Your task to perform on an android device: install app "Facebook" Image 0: 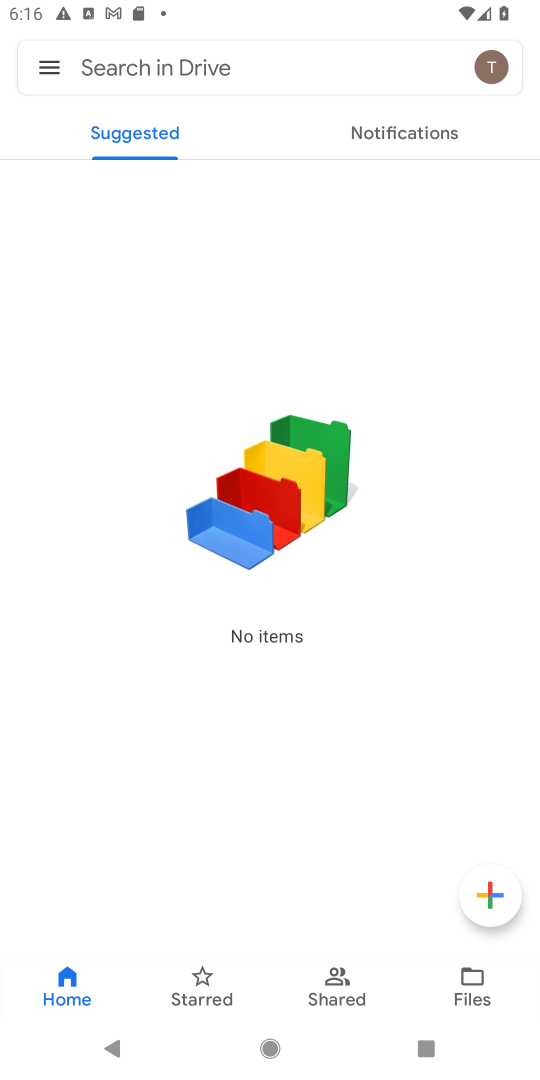
Step 0: press home button
Your task to perform on an android device: install app "Facebook" Image 1: 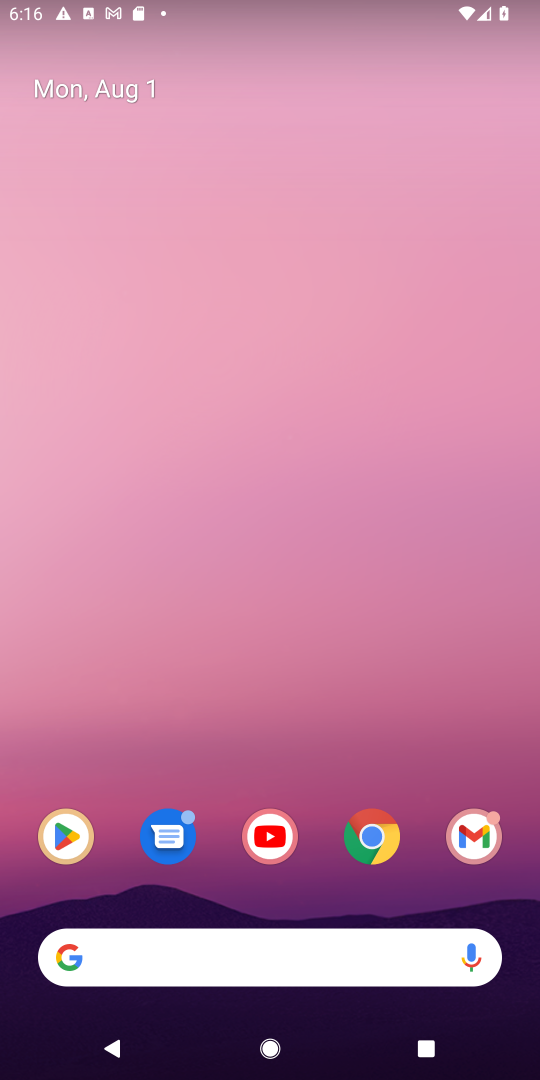
Step 1: click (66, 832)
Your task to perform on an android device: install app "Facebook" Image 2: 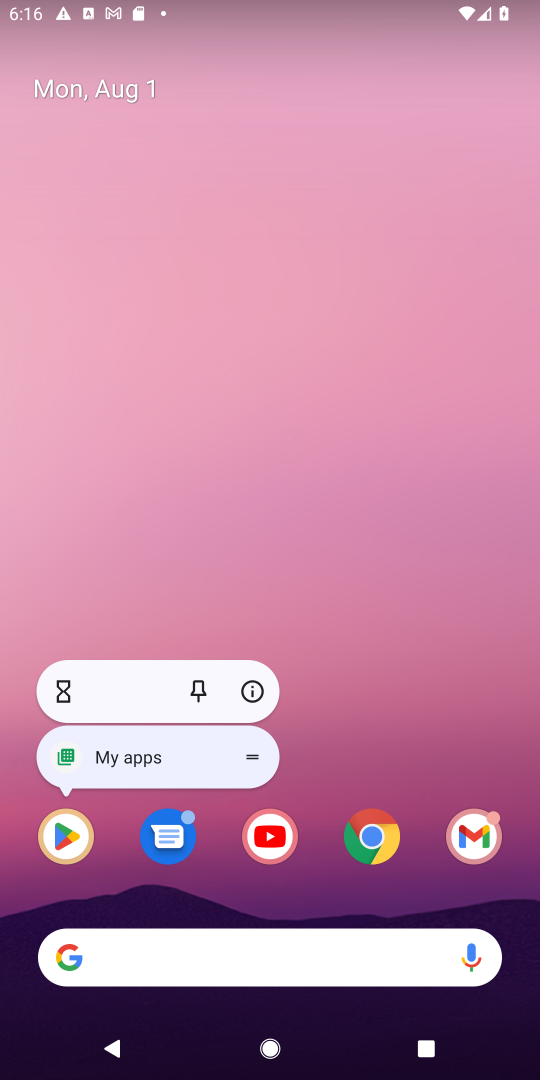
Step 2: click (66, 831)
Your task to perform on an android device: install app "Facebook" Image 3: 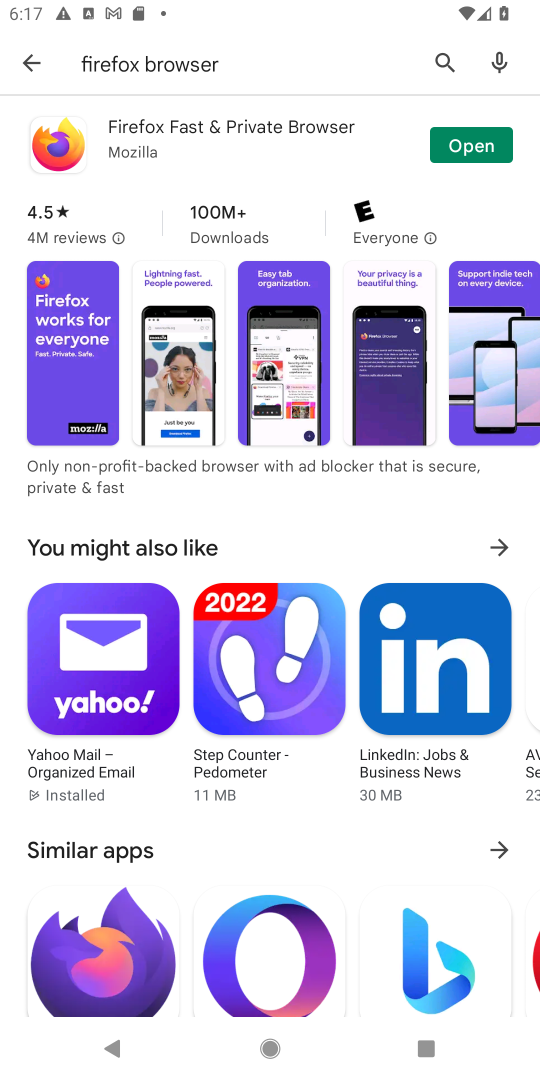
Step 3: click (438, 62)
Your task to perform on an android device: install app "Facebook" Image 4: 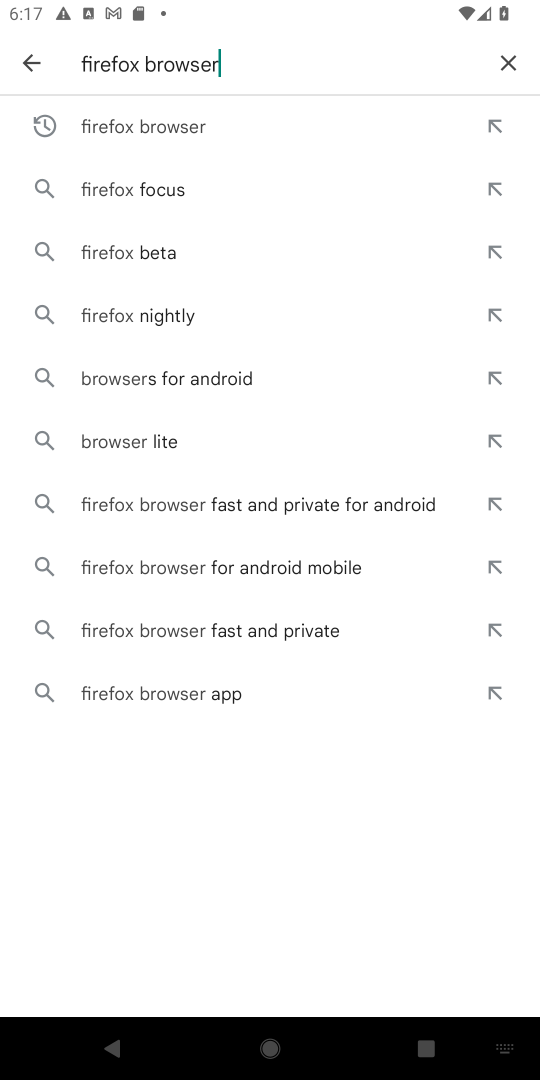
Step 4: click (501, 57)
Your task to perform on an android device: install app "Facebook" Image 5: 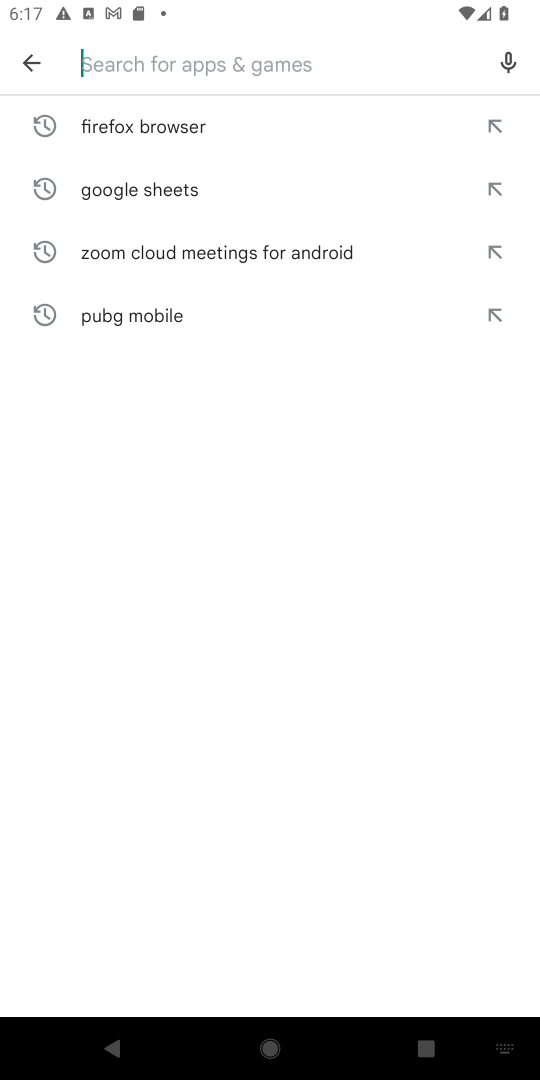
Step 5: type "Facebook"
Your task to perform on an android device: install app "Facebook" Image 6: 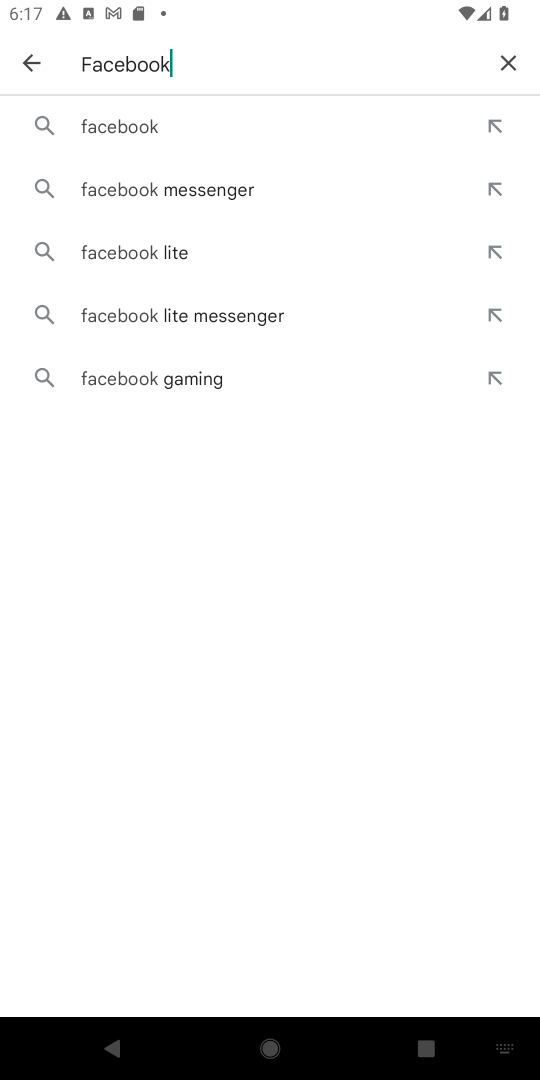
Step 6: click (144, 133)
Your task to perform on an android device: install app "Facebook" Image 7: 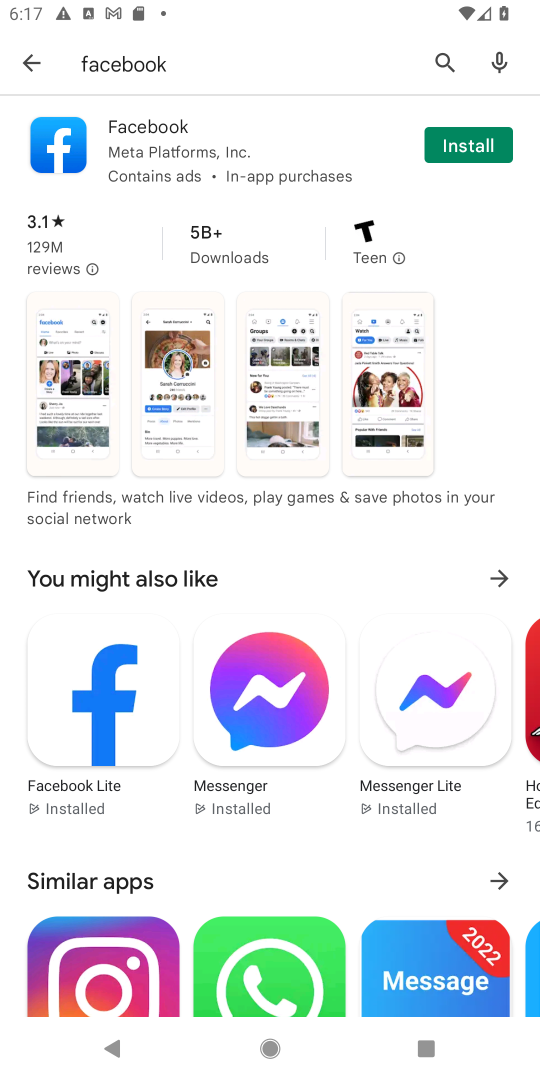
Step 7: click (483, 134)
Your task to perform on an android device: install app "Facebook" Image 8: 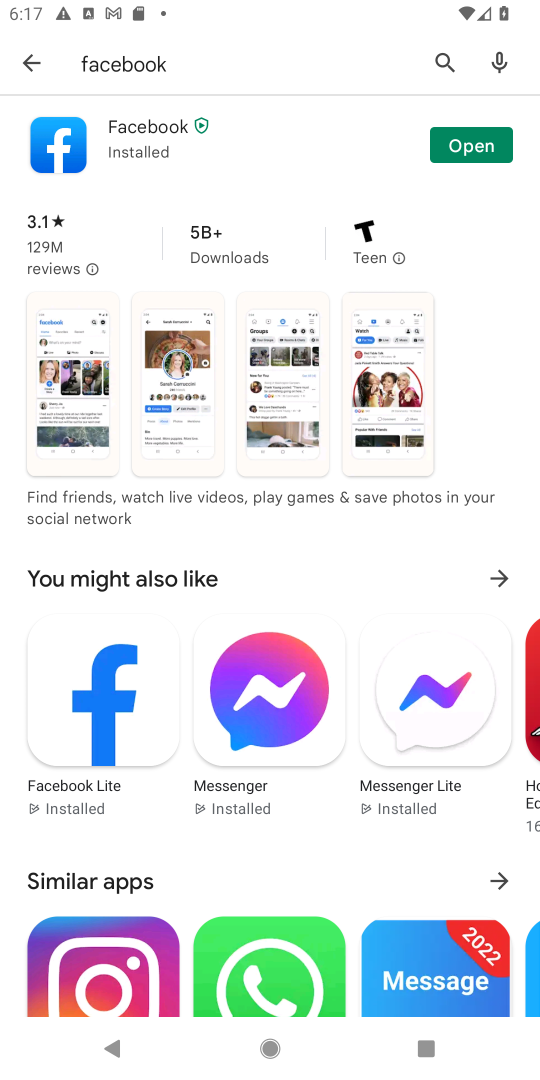
Step 8: task complete